Your task to perform on an android device: Go to Maps Image 0: 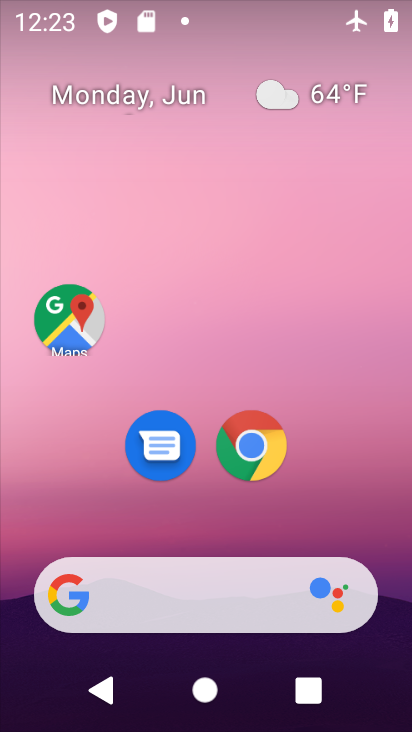
Step 0: drag from (277, 628) to (388, 4)
Your task to perform on an android device: Go to Maps Image 1: 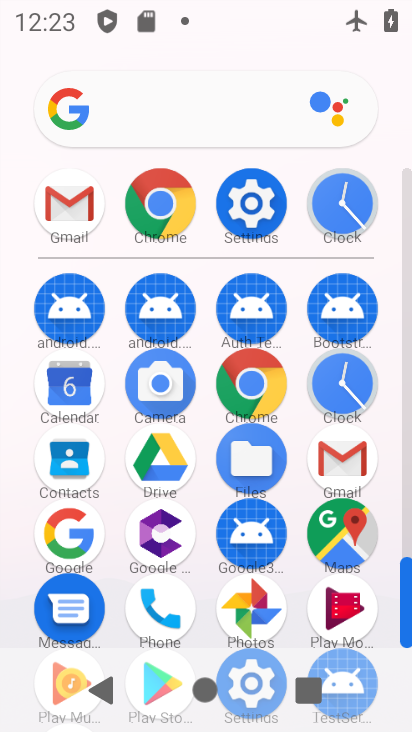
Step 1: click (329, 540)
Your task to perform on an android device: Go to Maps Image 2: 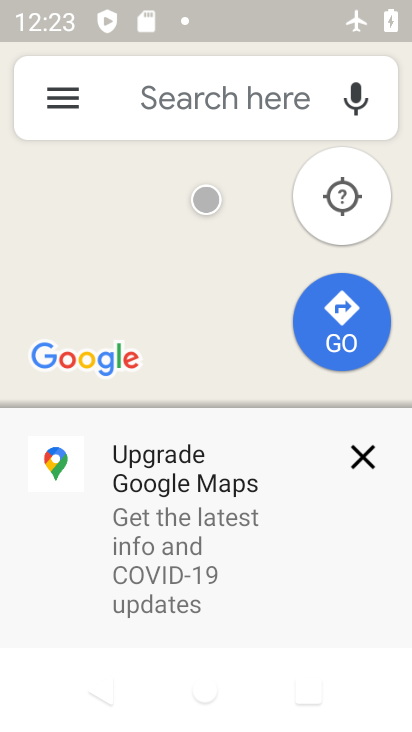
Step 2: task complete